Your task to perform on an android device: turn pop-ups on in chrome Image 0: 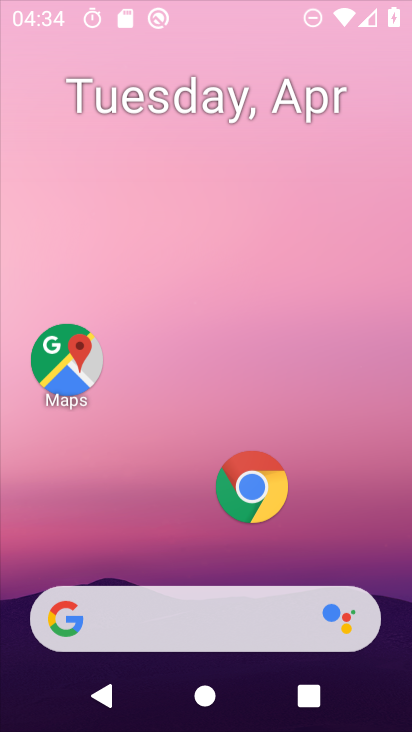
Step 0: click (270, 493)
Your task to perform on an android device: turn pop-ups on in chrome Image 1: 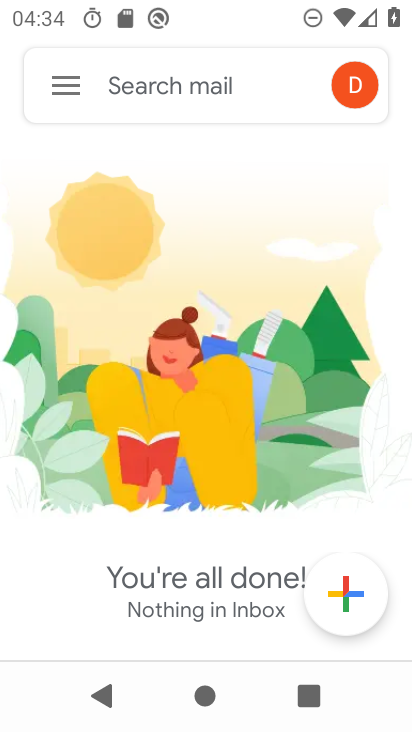
Step 1: press home button
Your task to perform on an android device: turn pop-ups on in chrome Image 2: 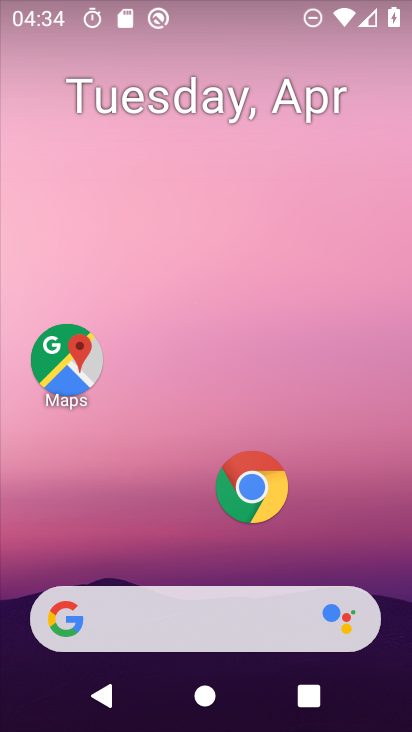
Step 2: click (263, 474)
Your task to perform on an android device: turn pop-ups on in chrome Image 3: 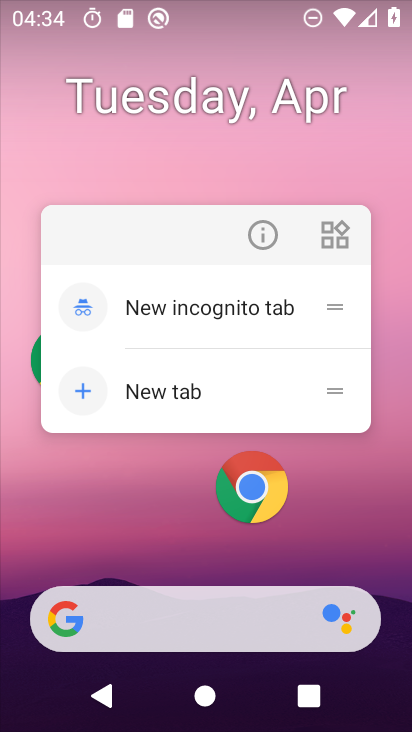
Step 3: click (256, 482)
Your task to perform on an android device: turn pop-ups on in chrome Image 4: 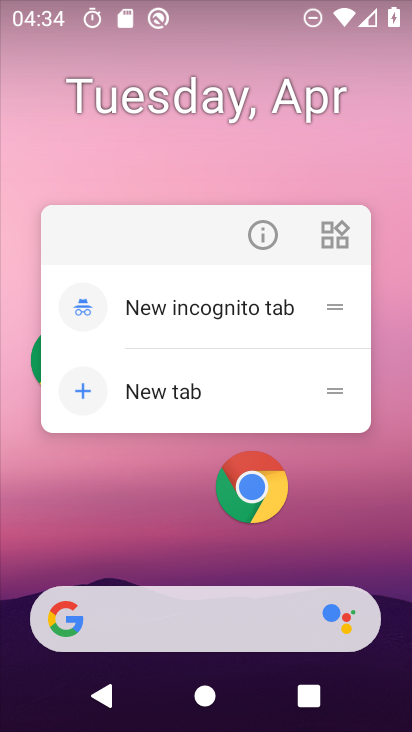
Step 4: click (233, 471)
Your task to perform on an android device: turn pop-ups on in chrome Image 5: 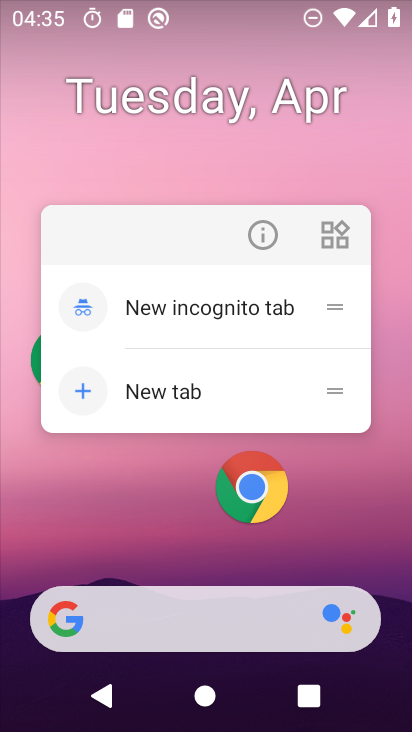
Step 5: click (244, 475)
Your task to perform on an android device: turn pop-ups on in chrome Image 6: 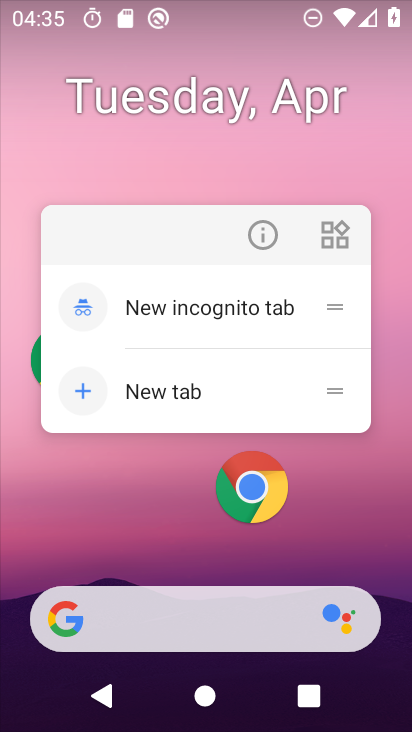
Step 6: click (249, 486)
Your task to perform on an android device: turn pop-ups on in chrome Image 7: 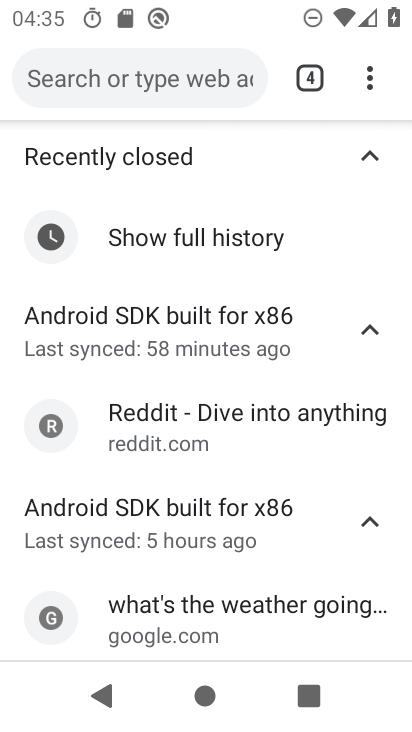
Step 7: drag from (367, 82) to (125, 543)
Your task to perform on an android device: turn pop-ups on in chrome Image 8: 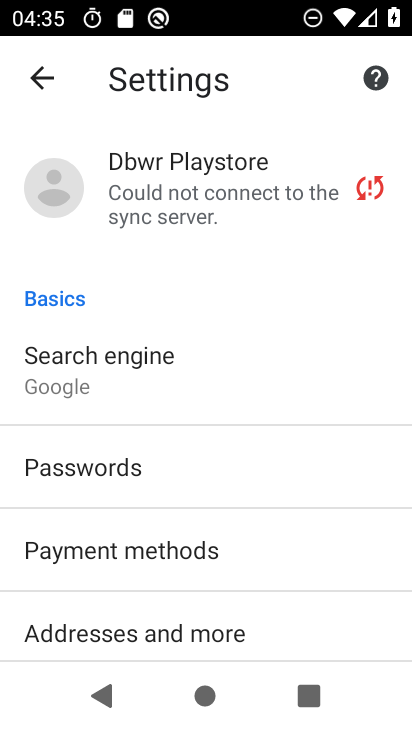
Step 8: drag from (148, 562) to (246, 126)
Your task to perform on an android device: turn pop-ups on in chrome Image 9: 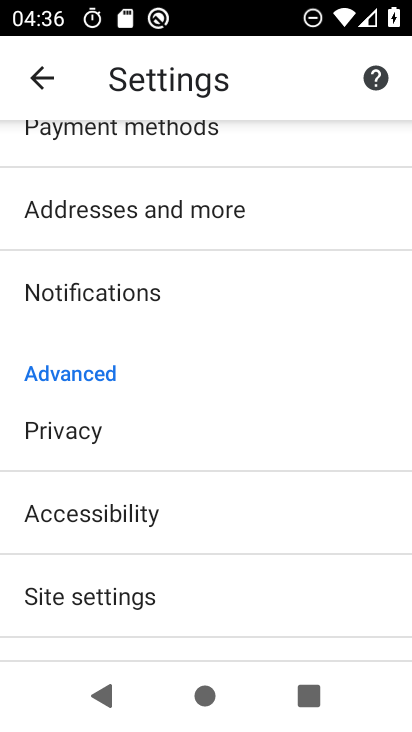
Step 9: drag from (149, 574) to (231, 210)
Your task to perform on an android device: turn pop-ups on in chrome Image 10: 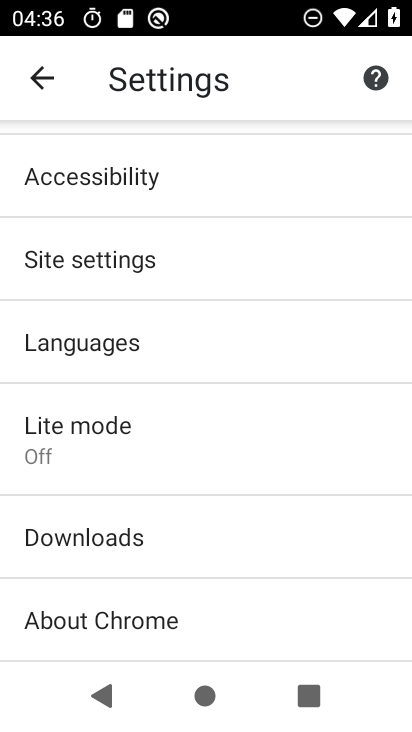
Step 10: click (85, 264)
Your task to perform on an android device: turn pop-ups on in chrome Image 11: 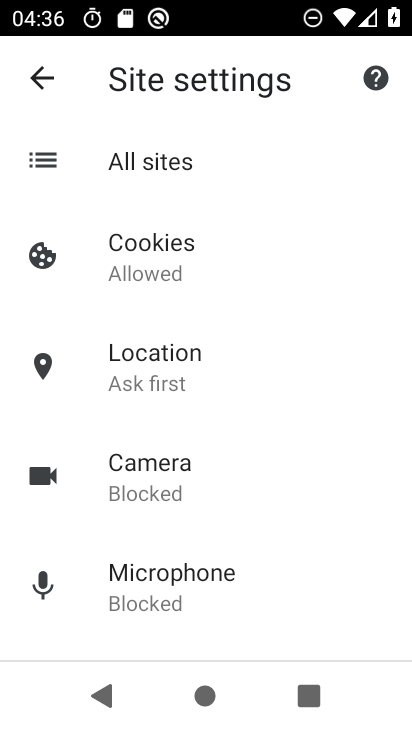
Step 11: drag from (162, 587) to (253, 122)
Your task to perform on an android device: turn pop-ups on in chrome Image 12: 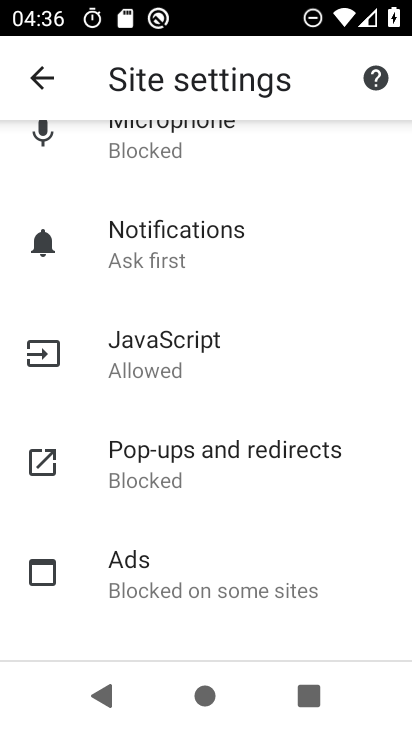
Step 12: click (201, 454)
Your task to perform on an android device: turn pop-ups on in chrome Image 13: 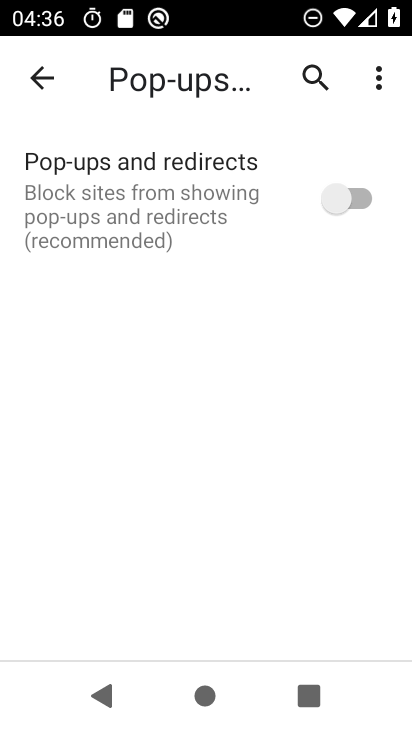
Step 13: click (354, 195)
Your task to perform on an android device: turn pop-ups on in chrome Image 14: 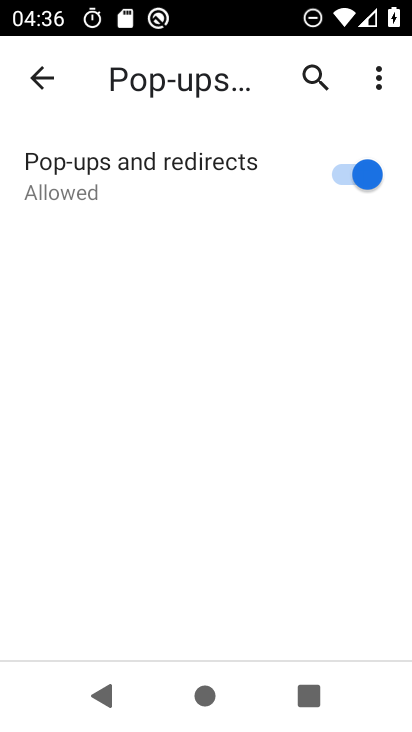
Step 14: task complete